Your task to perform on an android device: snooze an email in the gmail app Image 0: 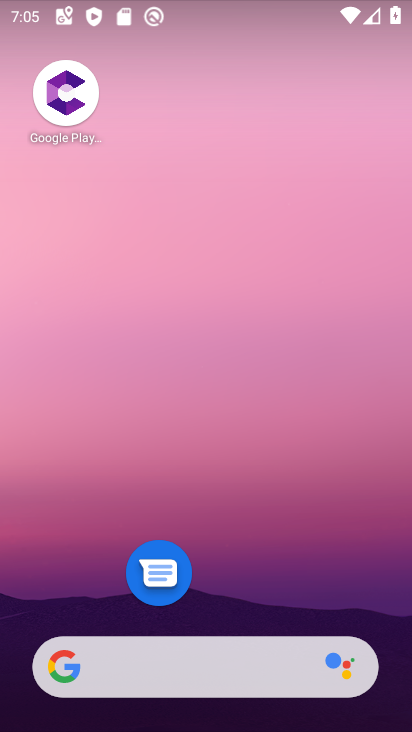
Step 0: drag from (202, 716) to (137, 202)
Your task to perform on an android device: snooze an email in the gmail app Image 1: 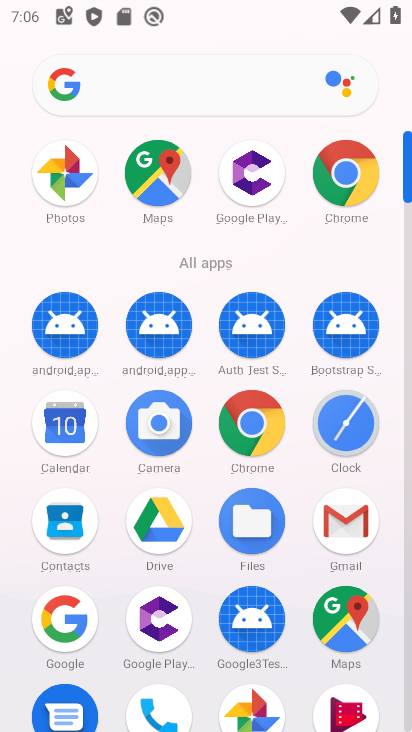
Step 1: click (349, 522)
Your task to perform on an android device: snooze an email in the gmail app Image 2: 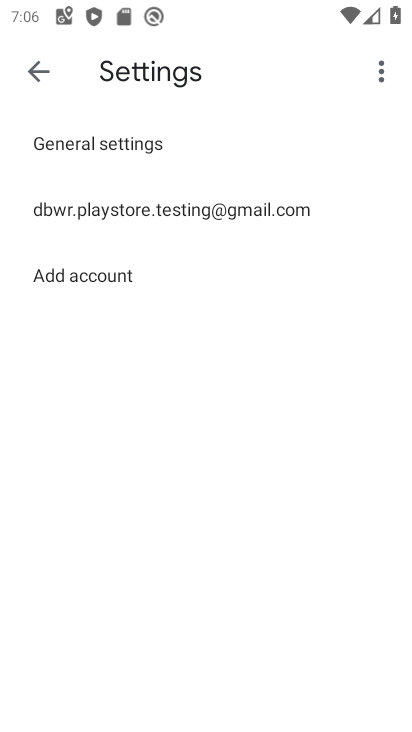
Step 2: press home button
Your task to perform on an android device: snooze an email in the gmail app Image 3: 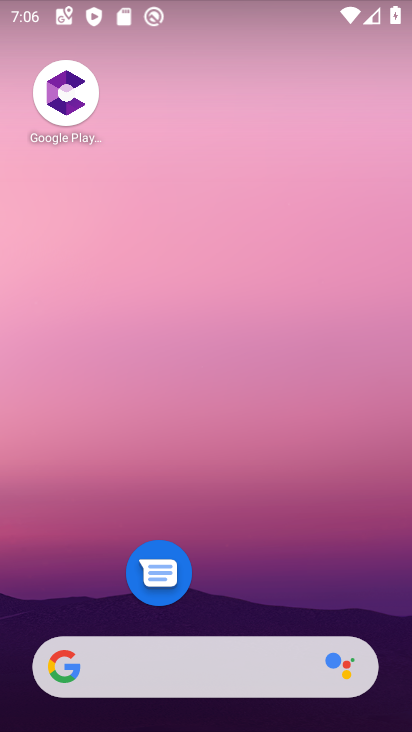
Step 3: drag from (308, 706) to (206, 188)
Your task to perform on an android device: snooze an email in the gmail app Image 4: 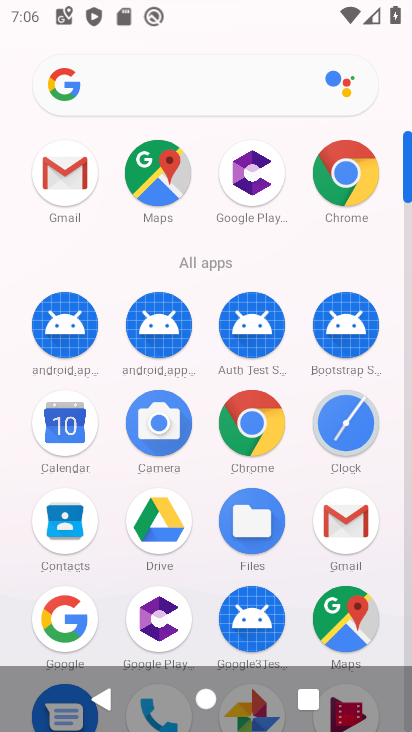
Step 4: click (63, 188)
Your task to perform on an android device: snooze an email in the gmail app Image 5: 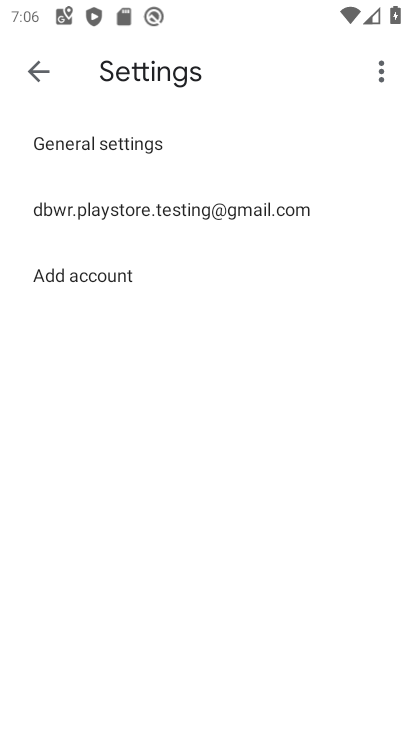
Step 5: click (149, 223)
Your task to perform on an android device: snooze an email in the gmail app Image 6: 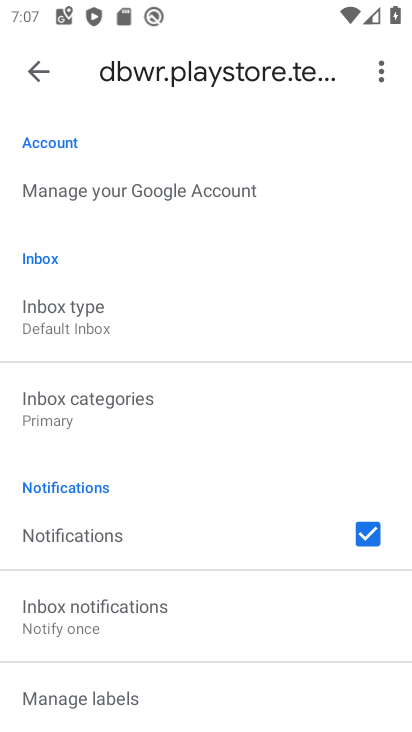
Step 6: click (41, 83)
Your task to perform on an android device: snooze an email in the gmail app Image 7: 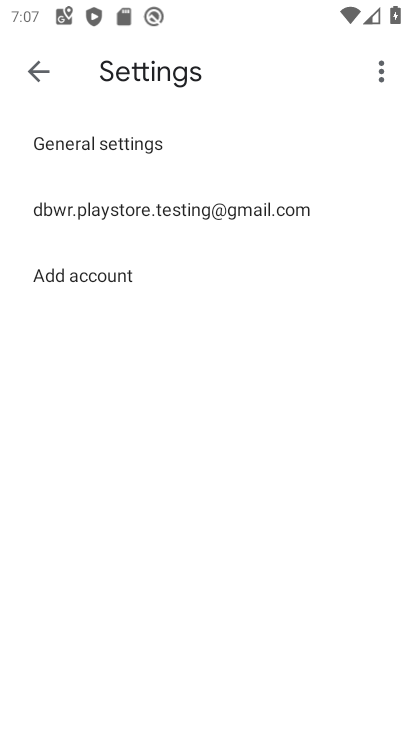
Step 7: click (41, 82)
Your task to perform on an android device: snooze an email in the gmail app Image 8: 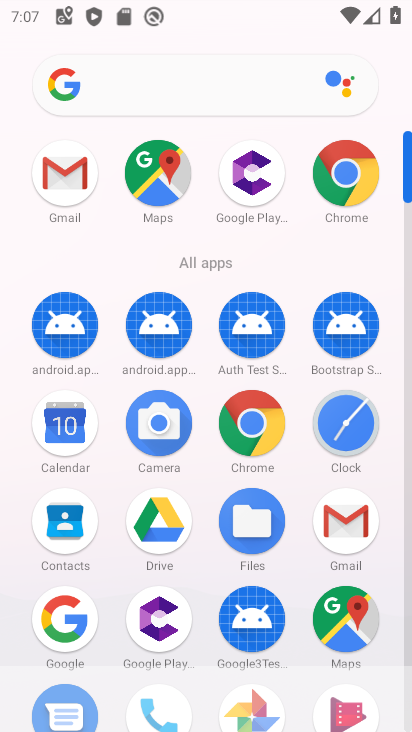
Step 8: click (69, 164)
Your task to perform on an android device: snooze an email in the gmail app Image 9: 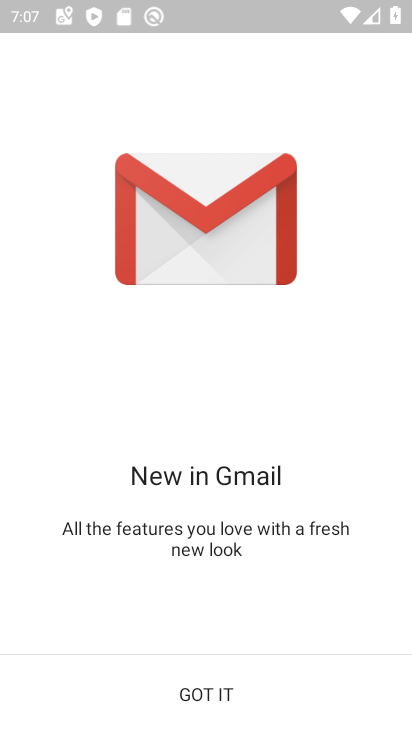
Step 9: click (215, 676)
Your task to perform on an android device: snooze an email in the gmail app Image 10: 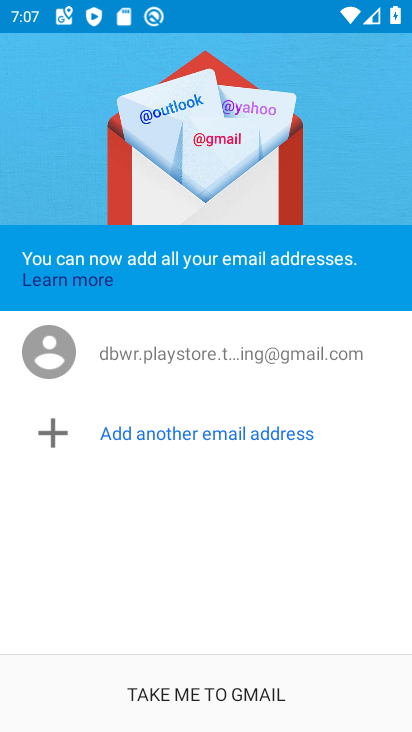
Step 10: click (239, 688)
Your task to perform on an android device: snooze an email in the gmail app Image 11: 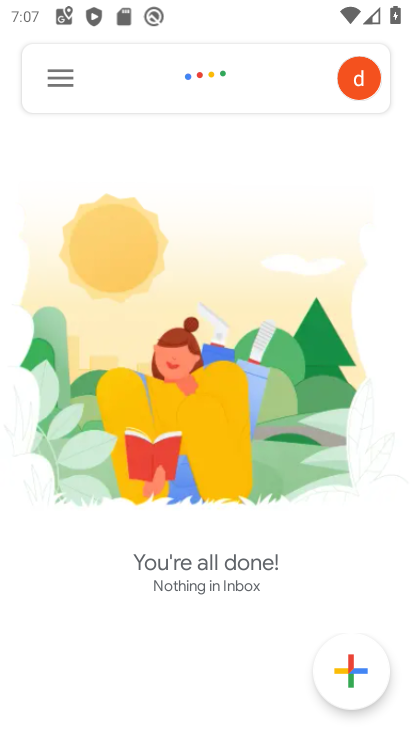
Step 11: click (54, 79)
Your task to perform on an android device: snooze an email in the gmail app Image 12: 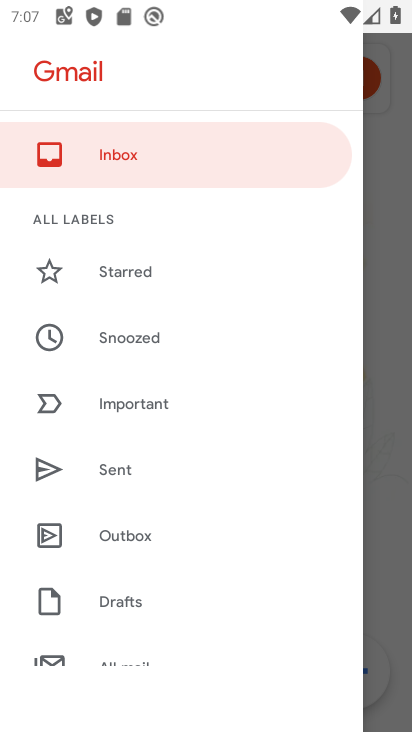
Step 12: drag from (114, 560) to (130, 516)
Your task to perform on an android device: snooze an email in the gmail app Image 13: 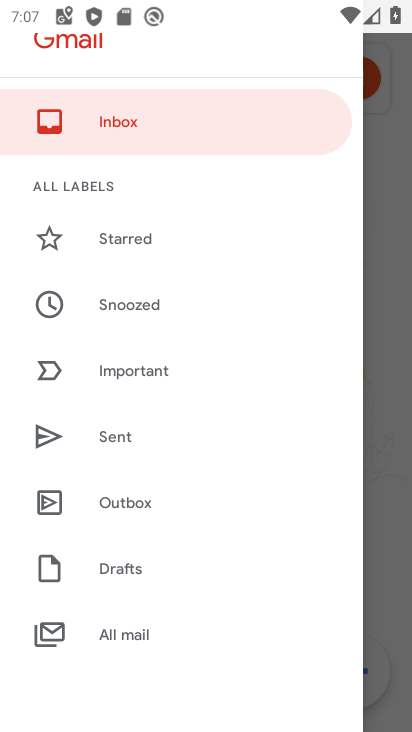
Step 13: click (156, 310)
Your task to perform on an android device: snooze an email in the gmail app Image 14: 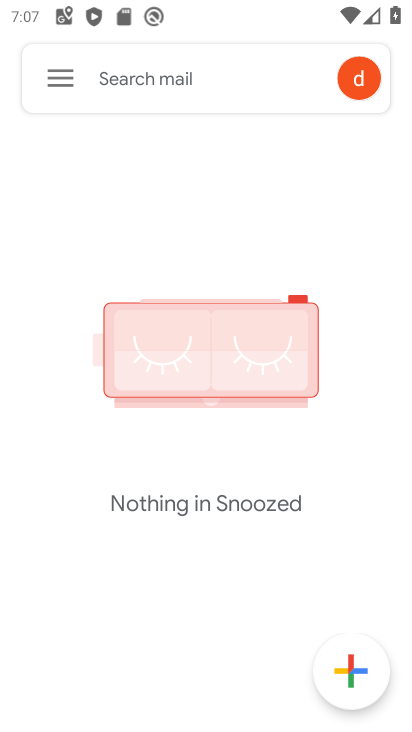
Step 14: task complete